Your task to perform on an android device: change alarm snooze length Image 0: 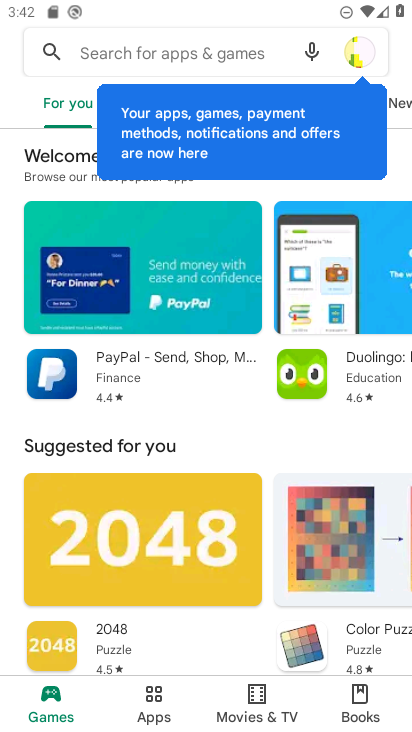
Step 0: press home button
Your task to perform on an android device: change alarm snooze length Image 1: 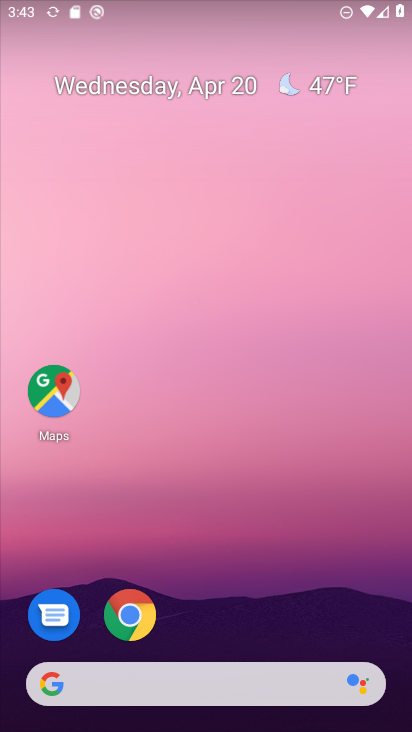
Step 1: drag from (267, 630) to (215, 153)
Your task to perform on an android device: change alarm snooze length Image 2: 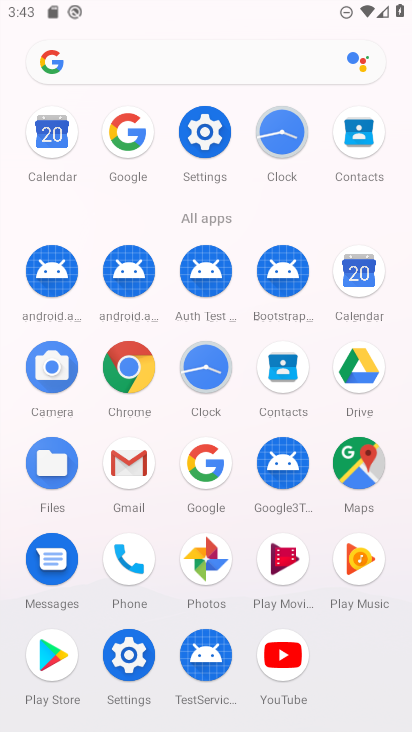
Step 2: click (270, 141)
Your task to perform on an android device: change alarm snooze length Image 3: 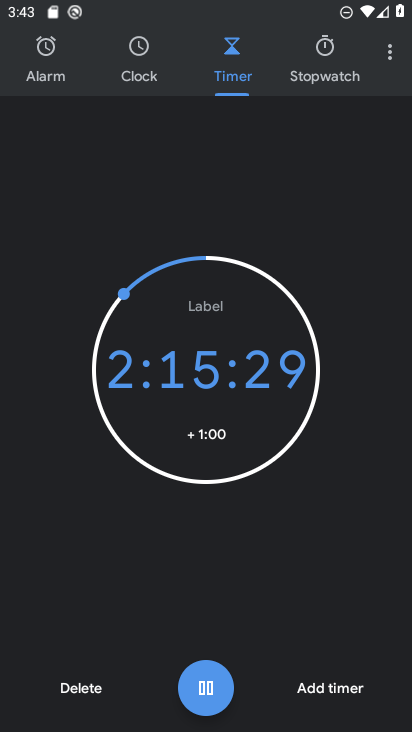
Step 3: click (388, 52)
Your task to perform on an android device: change alarm snooze length Image 4: 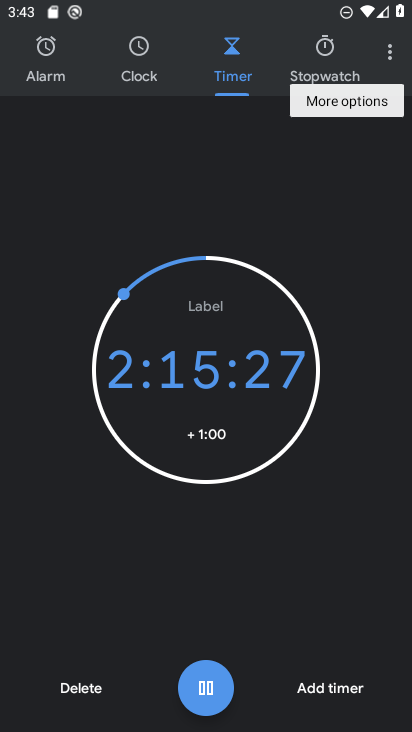
Step 4: click (387, 50)
Your task to perform on an android device: change alarm snooze length Image 5: 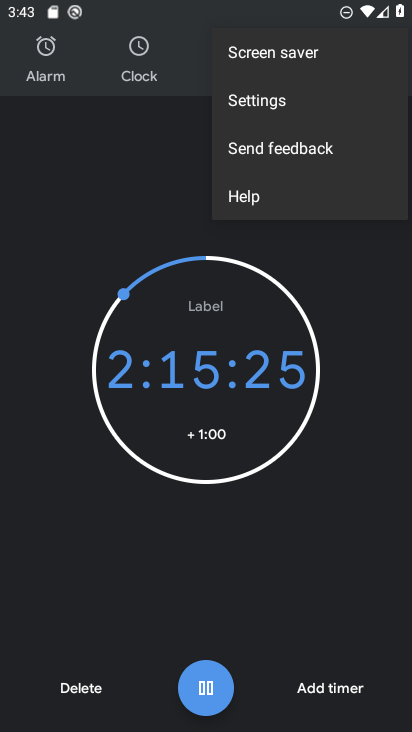
Step 5: click (253, 95)
Your task to perform on an android device: change alarm snooze length Image 6: 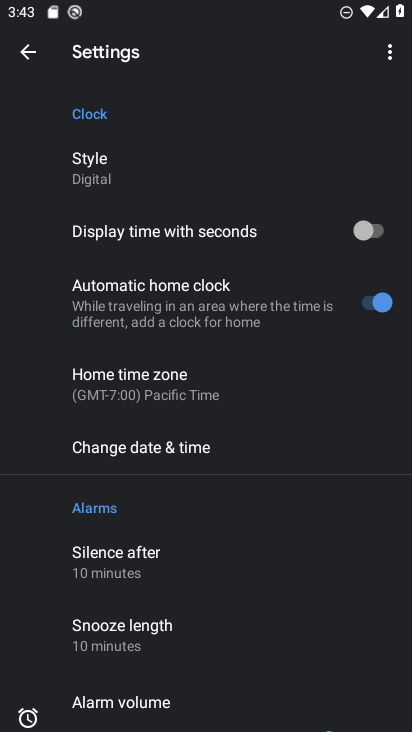
Step 6: click (116, 637)
Your task to perform on an android device: change alarm snooze length Image 7: 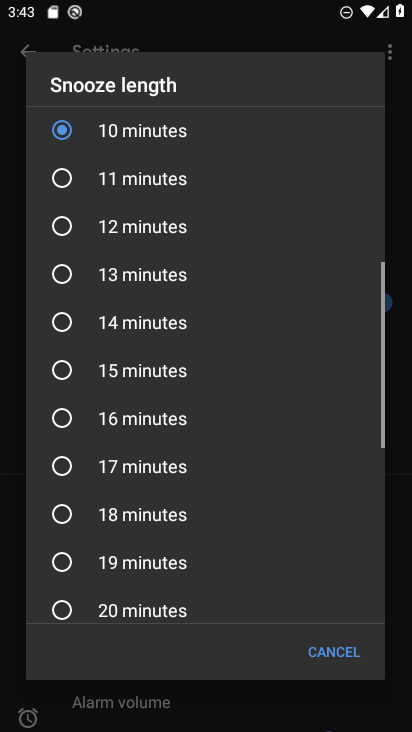
Step 7: drag from (112, 257) to (73, 602)
Your task to perform on an android device: change alarm snooze length Image 8: 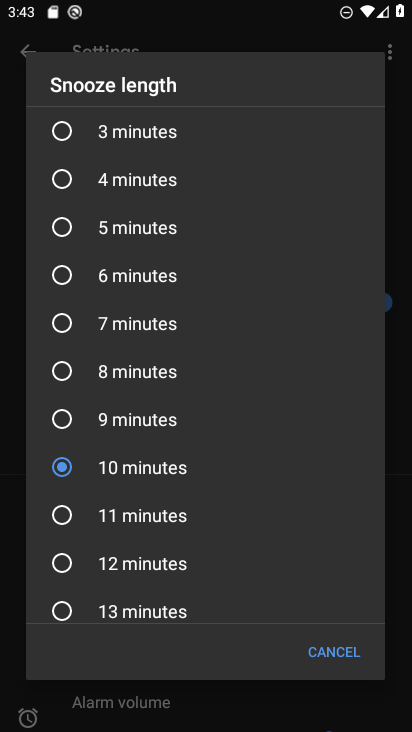
Step 8: click (56, 227)
Your task to perform on an android device: change alarm snooze length Image 9: 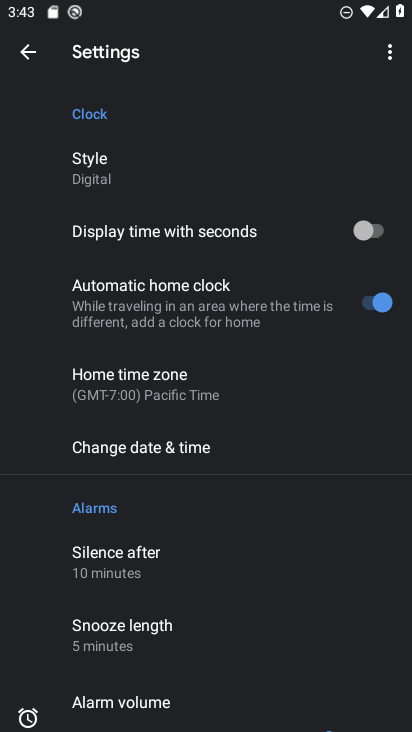
Step 9: task complete